Your task to perform on an android device: turn on location history Image 0: 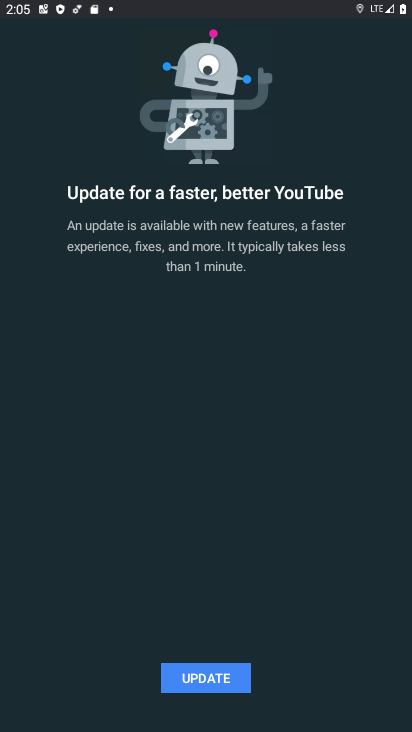
Step 0: press home button
Your task to perform on an android device: turn on location history Image 1: 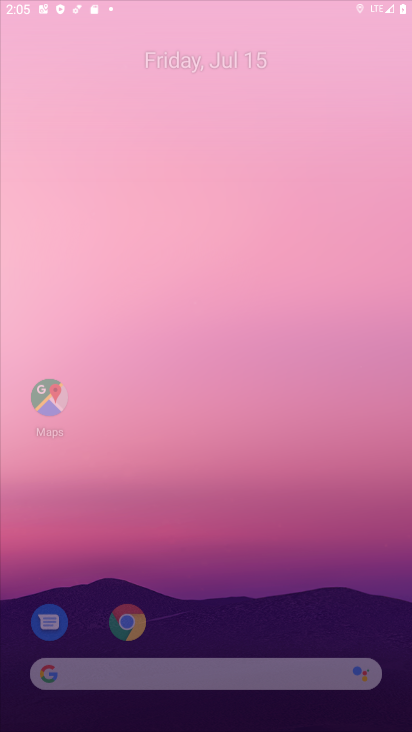
Step 1: drag from (357, 698) to (277, 22)
Your task to perform on an android device: turn on location history Image 2: 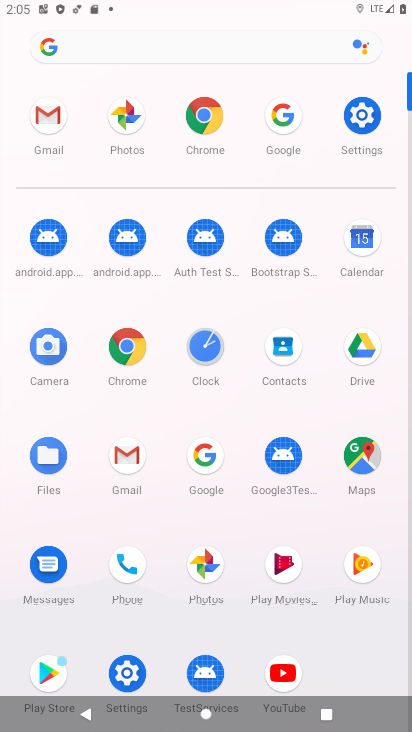
Step 2: click (367, 108)
Your task to perform on an android device: turn on location history Image 3: 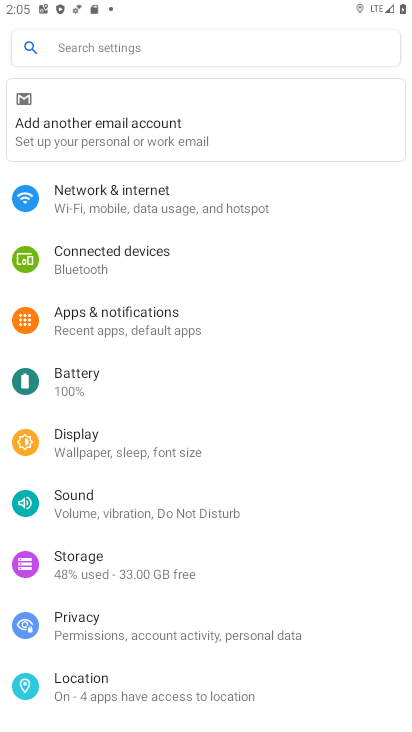
Step 3: click (95, 685)
Your task to perform on an android device: turn on location history Image 4: 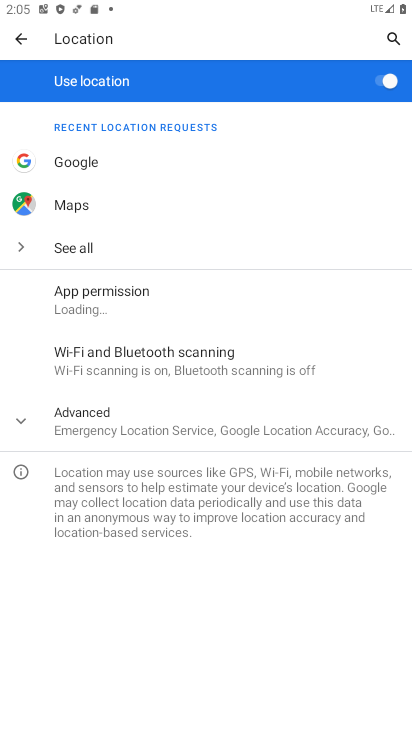
Step 4: click (145, 421)
Your task to perform on an android device: turn on location history Image 5: 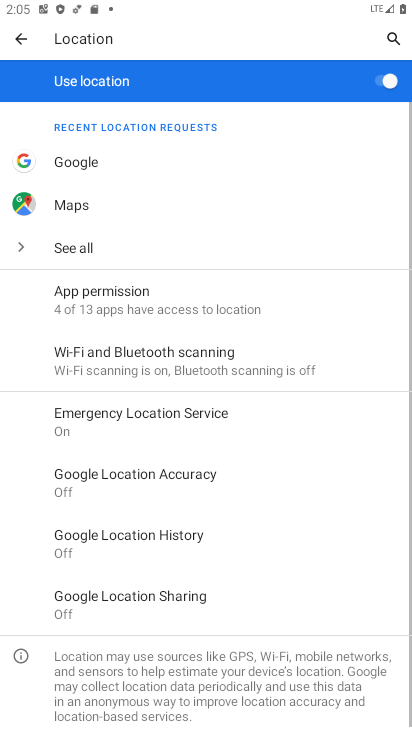
Step 5: click (176, 537)
Your task to perform on an android device: turn on location history Image 6: 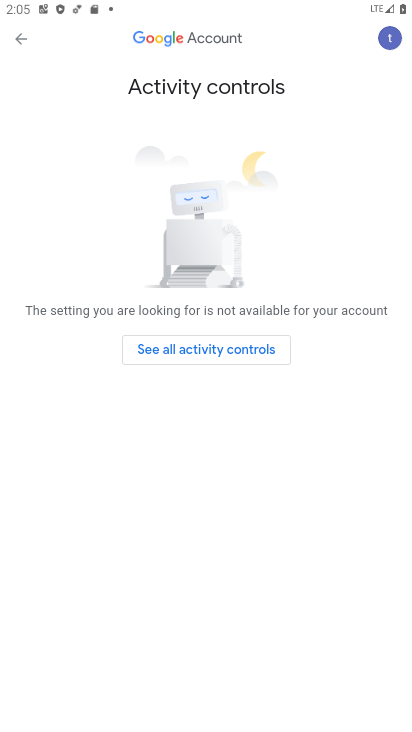
Step 6: task complete